Your task to perform on an android device: Show me the alarms in the clock app Image 0: 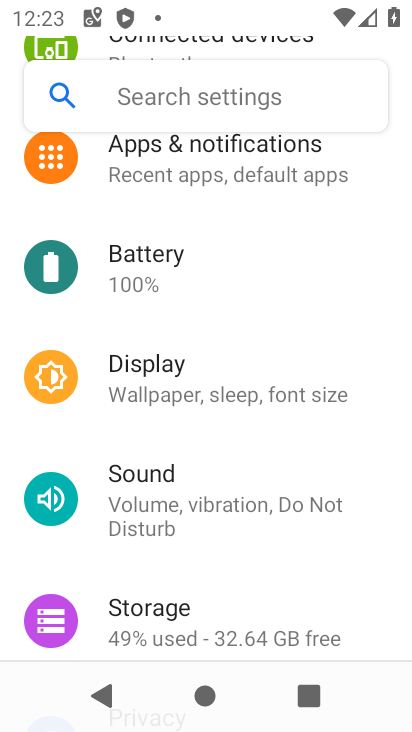
Step 0: press back button
Your task to perform on an android device: Show me the alarms in the clock app Image 1: 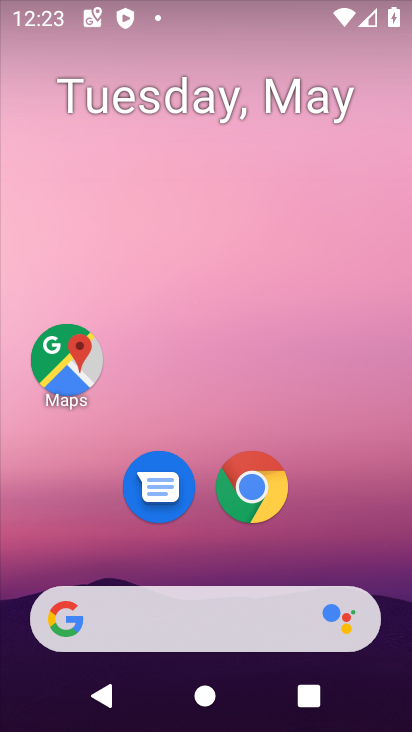
Step 1: drag from (376, 522) to (293, 53)
Your task to perform on an android device: Show me the alarms in the clock app Image 2: 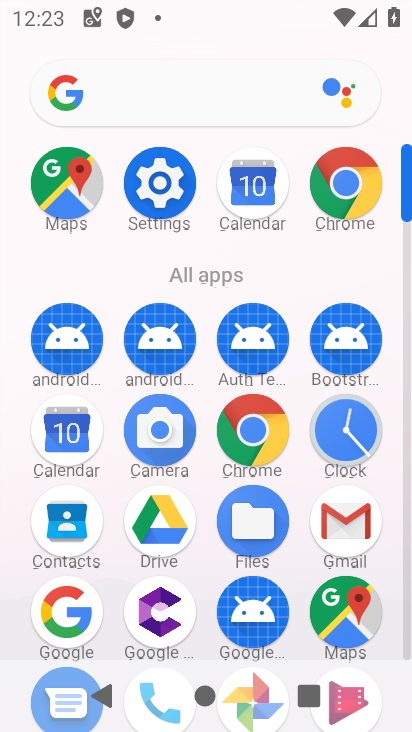
Step 2: drag from (10, 503) to (26, 176)
Your task to perform on an android device: Show me the alarms in the clock app Image 3: 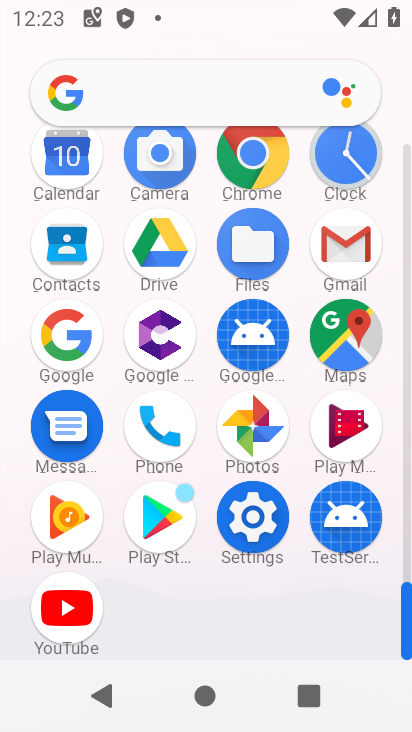
Step 3: click (350, 152)
Your task to perform on an android device: Show me the alarms in the clock app Image 4: 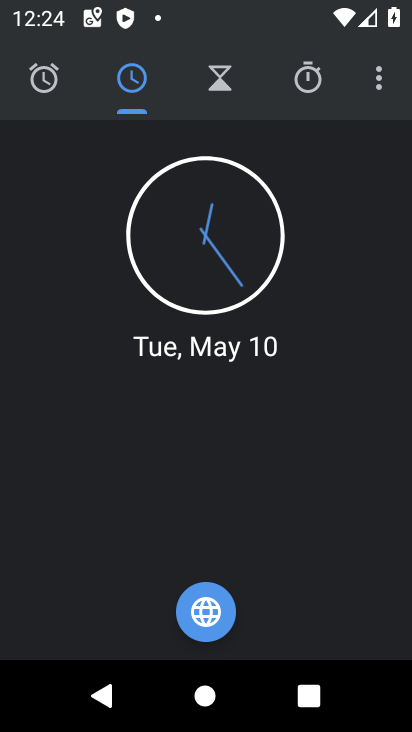
Step 4: click (44, 72)
Your task to perform on an android device: Show me the alarms in the clock app Image 5: 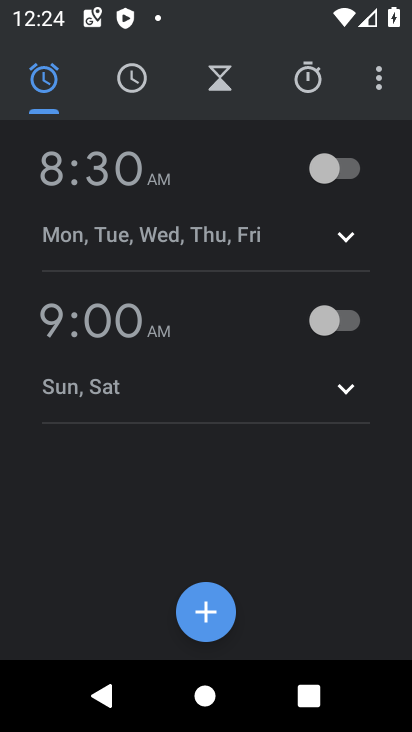
Step 5: task complete